Your task to perform on an android device: check out phone information Image 0: 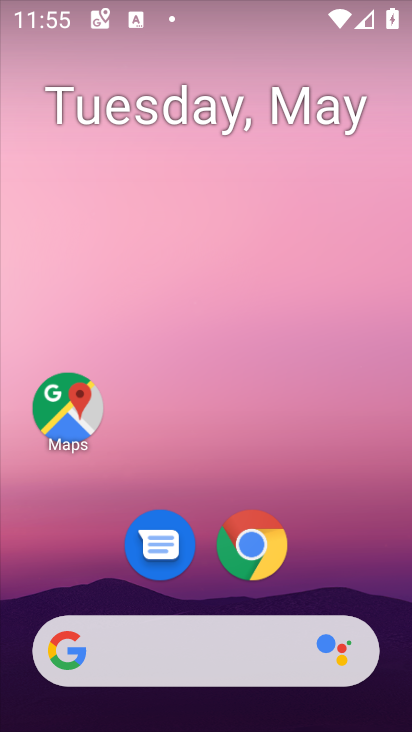
Step 0: drag from (205, 585) to (217, 263)
Your task to perform on an android device: check out phone information Image 1: 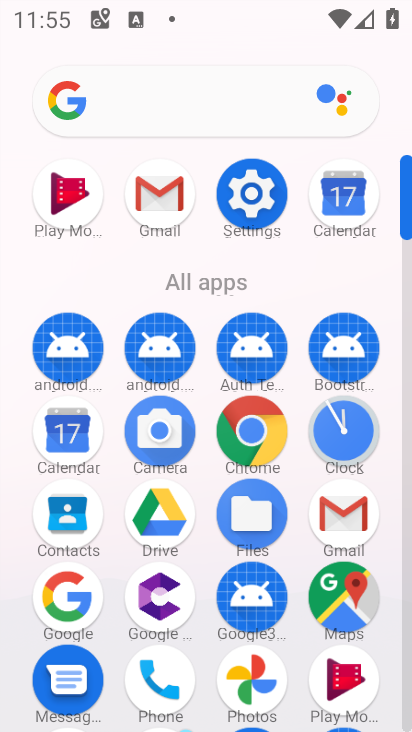
Step 1: drag from (197, 591) to (205, 333)
Your task to perform on an android device: check out phone information Image 2: 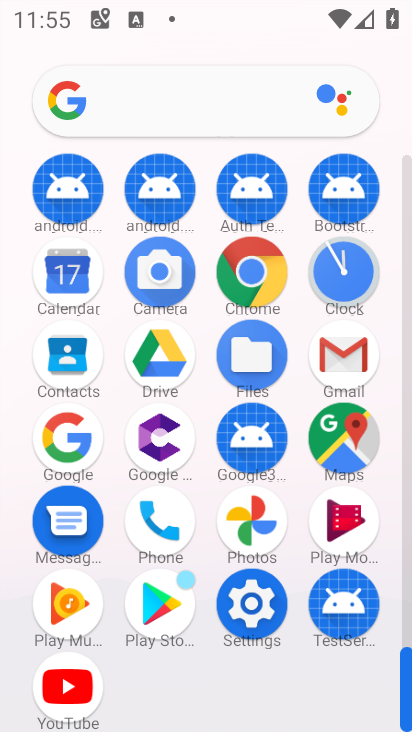
Step 2: click (256, 602)
Your task to perform on an android device: check out phone information Image 3: 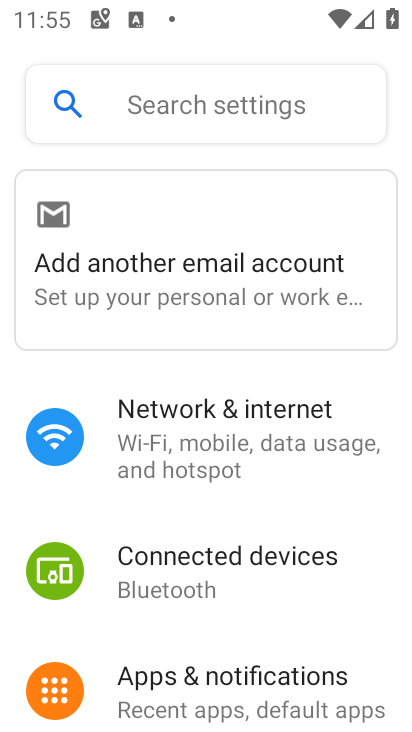
Step 3: task complete